Your task to perform on an android device: read, delete, or share a saved page in the chrome app Image 0: 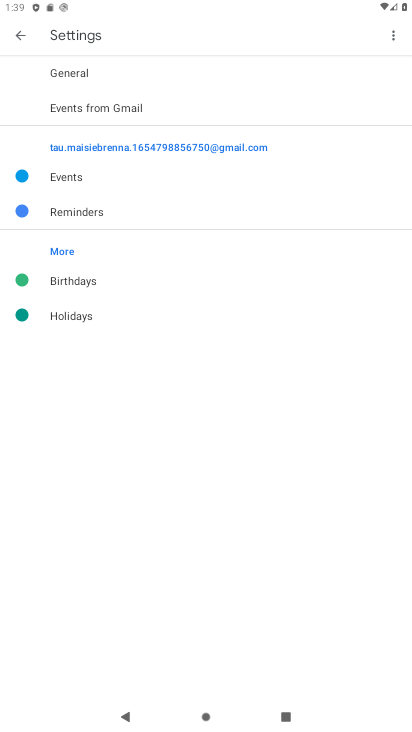
Step 0: click (22, 44)
Your task to perform on an android device: read, delete, or share a saved page in the chrome app Image 1: 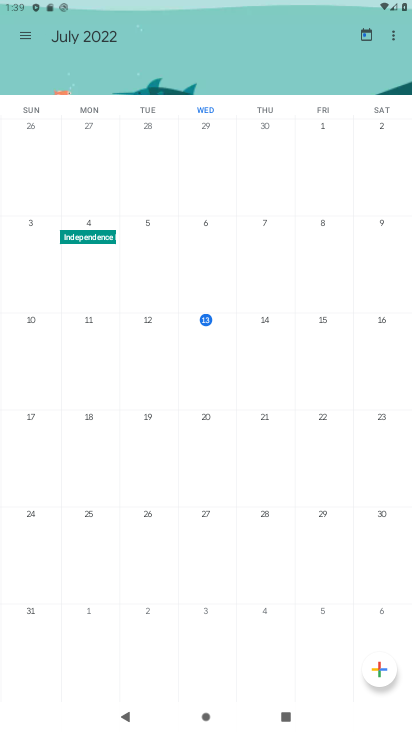
Step 1: press home button
Your task to perform on an android device: read, delete, or share a saved page in the chrome app Image 2: 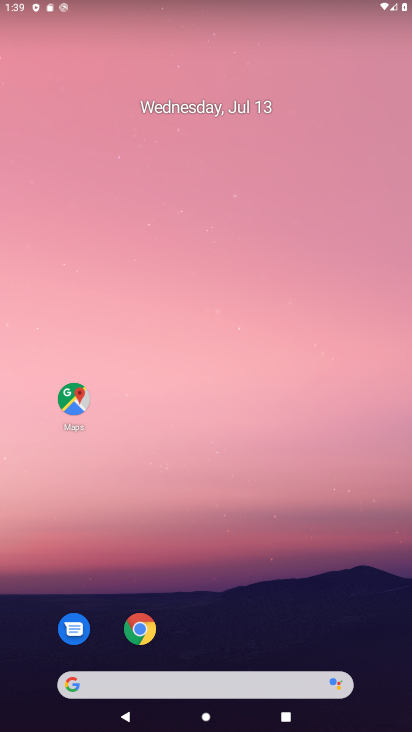
Step 2: drag from (252, 597) to (226, 143)
Your task to perform on an android device: read, delete, or share a saved page in the chrome app Image 3: 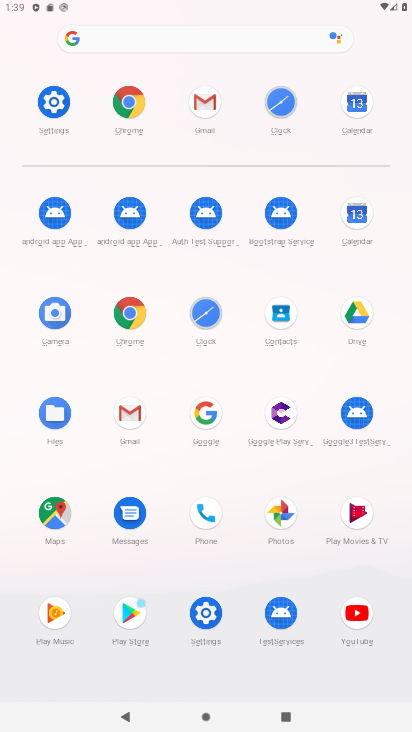
Step 3: click (128, 120)
Your task to perform on an android device: read, delete, or share a saved page in the chrome app Image 4: 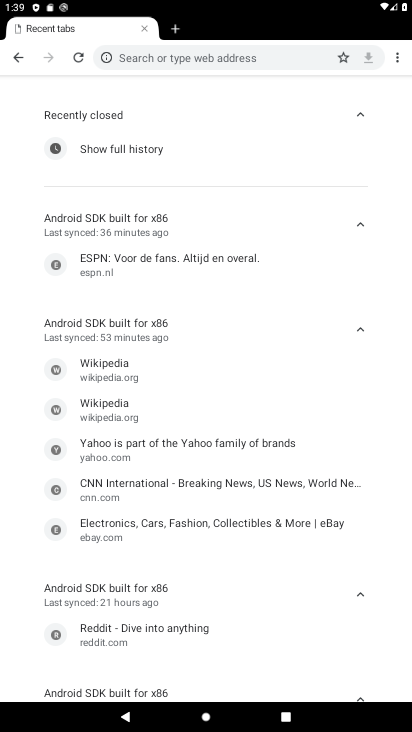
Step 4: click (402, 62)
Your task to perform on an android device: read, delete, or share a saved page in the chrome app Image 5: 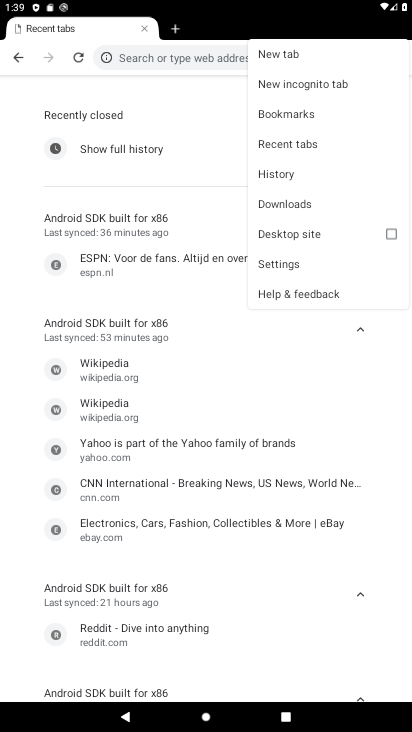
Step 5: click (287, 212)
Your task to perform on an android device: read, delete, or share a saved page in the chrome app Image 6: 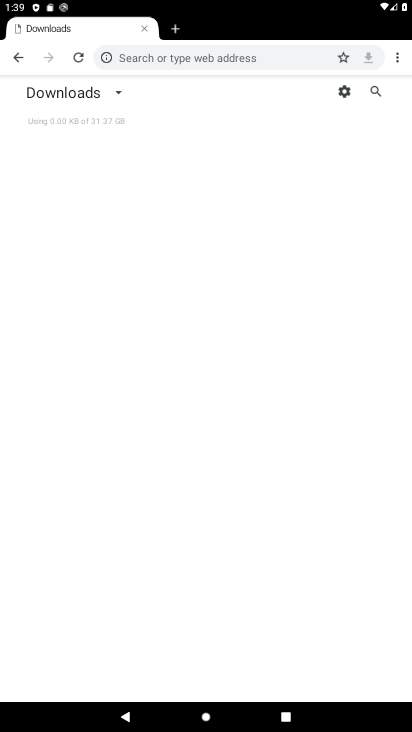
Step 6: task complete